Your task to perform on an android device: Open Amazon Image 0: 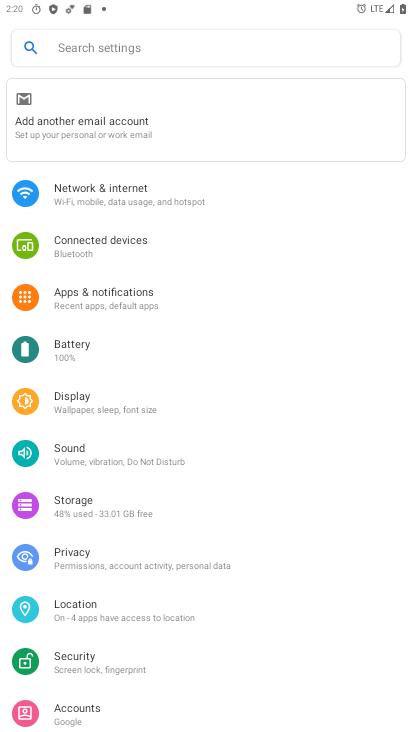
Step 0: press home button
Your task to perform on an android device: Open Amazon Image 1: 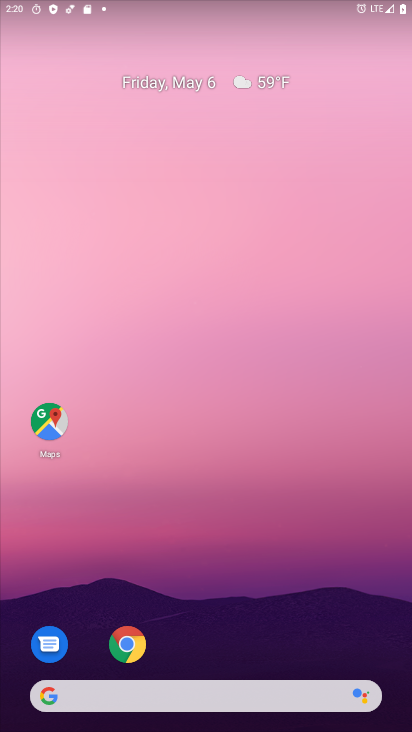
Step 1: click (141, 649)
Your task to perform on an android device: Open Amazon Image 2: 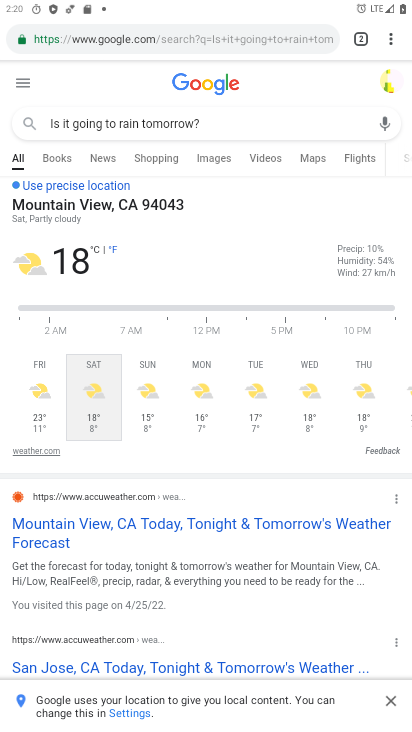
Step 2: click (358, 43)
Your task to perform on an android device: Open Amazon Image 3: 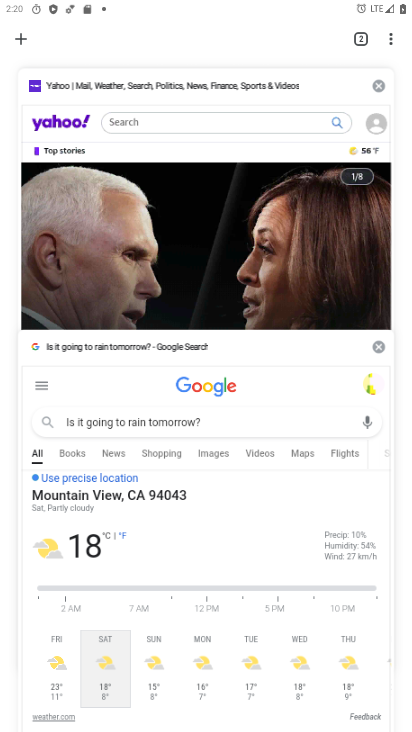
Step 3: click (23, 30)
Your task to perform on an android device: Open Amazon Image 4: 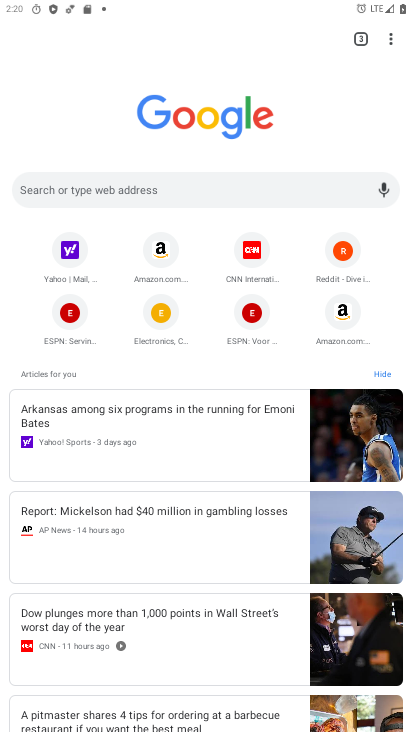
Step 4: click (343, 316)
Your task to perform on an android device: Open Amazon Image 5: 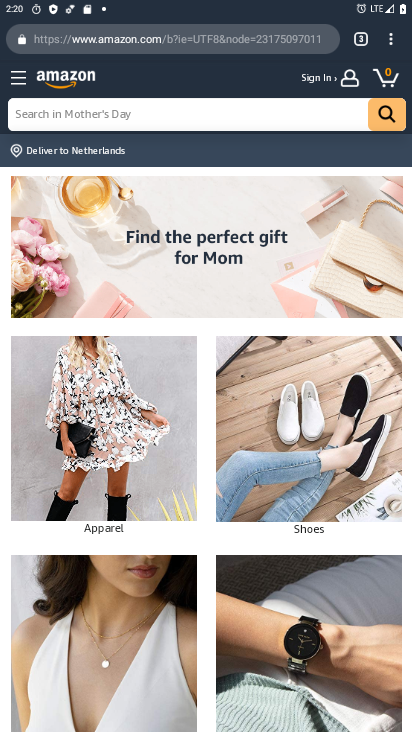
Step 5: task complete